Your task to perform on an android device: Open accessibility settings Image 0: 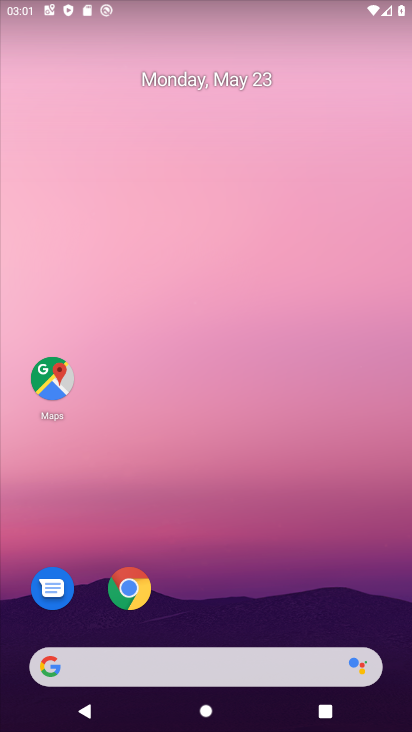
Step 0: drag from (220, 723) to (230, 161)
Your task to perform on an android device: Open accessibility settings Image 1: 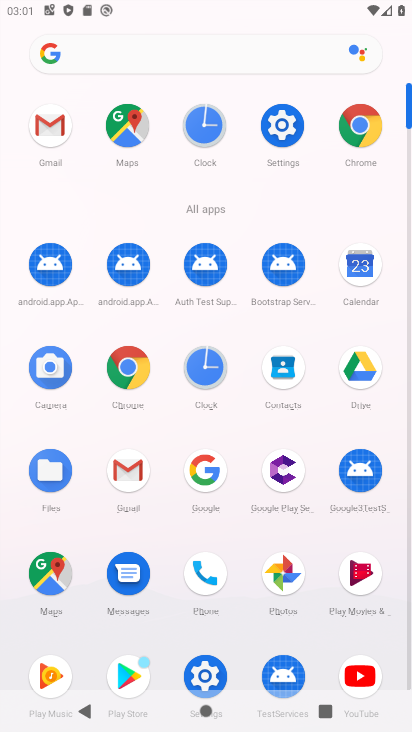
Step 1: click (283, 120)
Your task to perform on an android device: Open accessibility settings Image 2: 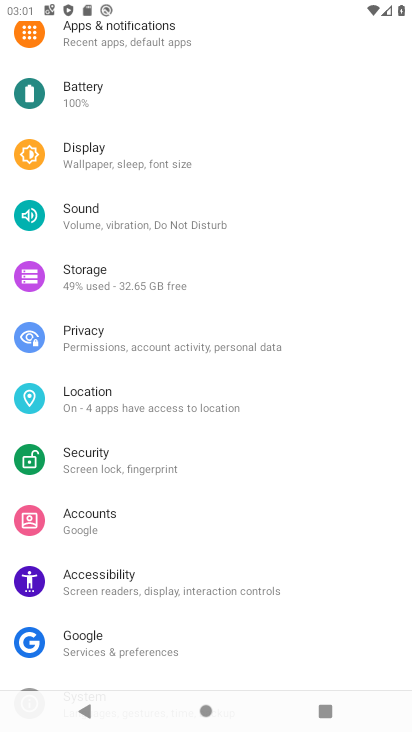
Step 2: click (137, 580)
Your task to perform on an android device: Open accessibility settings Image 3: 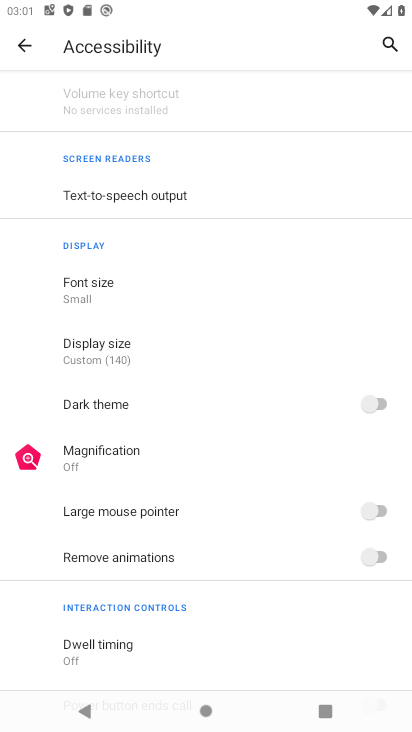
Step 3: task complete